Your task to perform on an android device: Show me popular videos on Youtube Image 0: 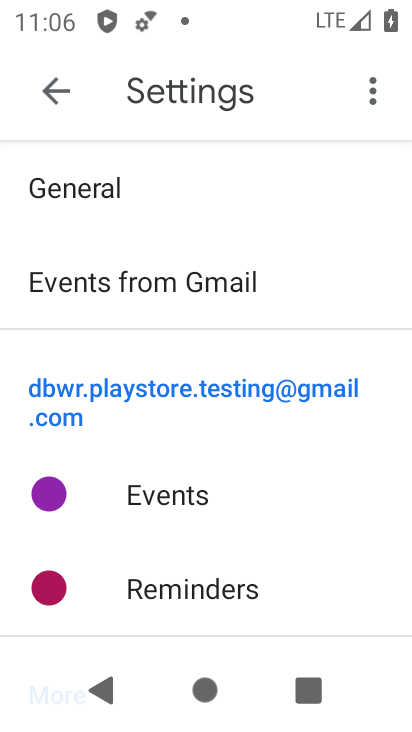
Step 0: press home button
Your task to perform on an android device: Show me popular videos on Youtube Image 1: 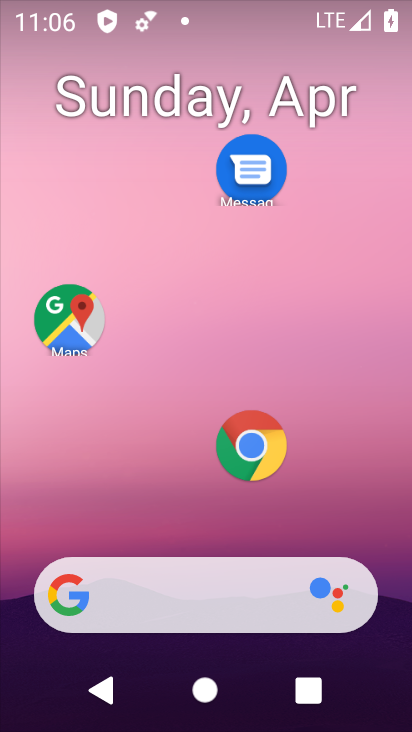
Step 1: drag from (183, 584) to (315, 71)
Your task to perform on an android device: Show me popular videos on Youtube Image 2: 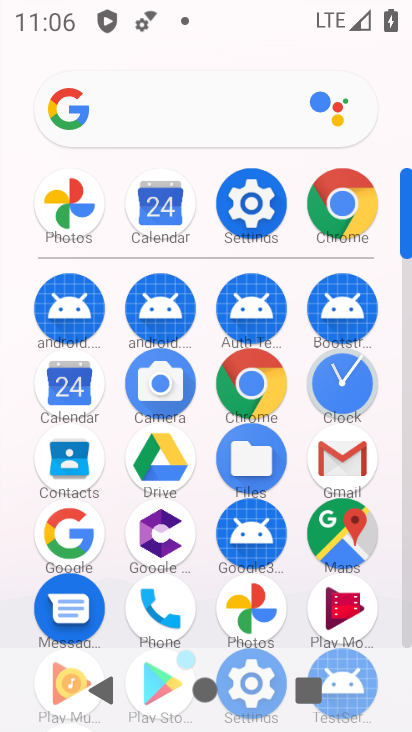
Step 2: drag from (202, 637) to (381, 119)
Your task to perform on an android device: Show me popular videos on Youtube Image 3: 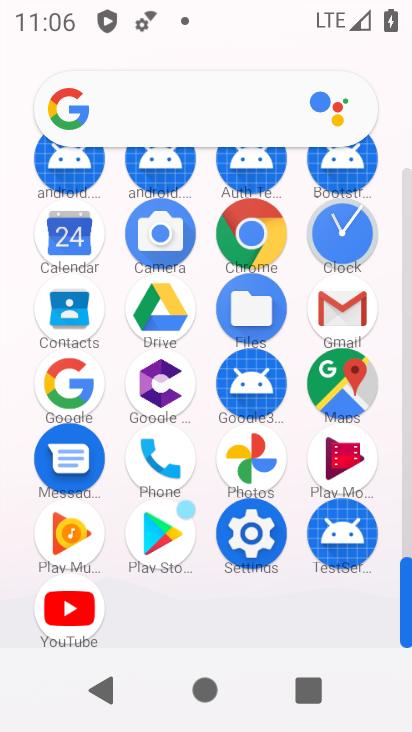
Step 3: click (77, 609)
Your task to perform on an android device: Show me popular videos on Youtube Image 4: 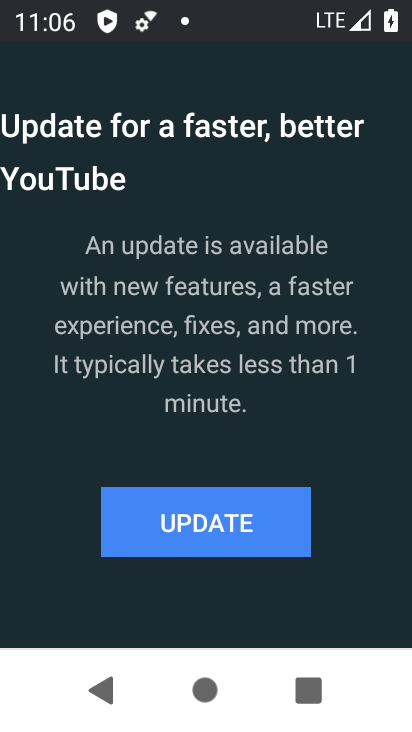
Step 4: click (195, 524)
Your task to perform on an android device: Show me popular videos on Youtube Image 5: 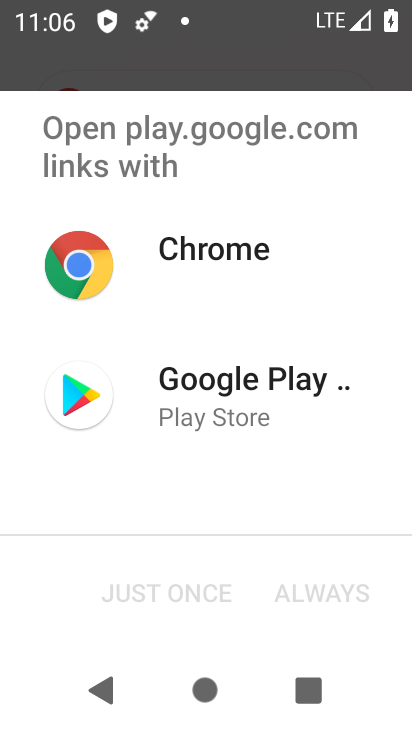
Step 5: click (211, 432)
Your task to perform on an android device: Show me popular videos on Youtube Image 6: 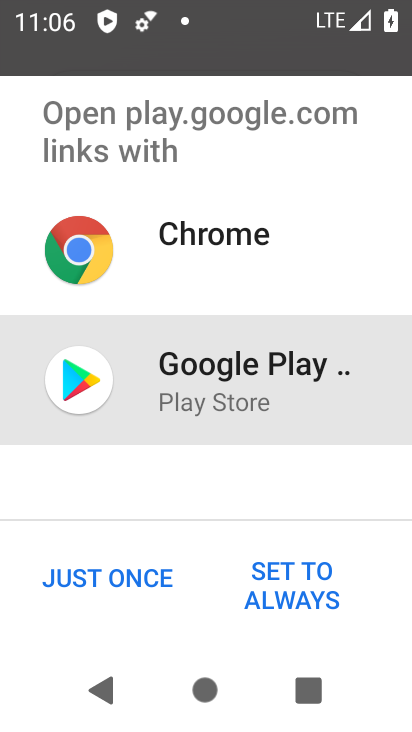
Step 6: click (129, 594)
Your task to perform on an android device: Show me popular videos on Youtube Image 7: 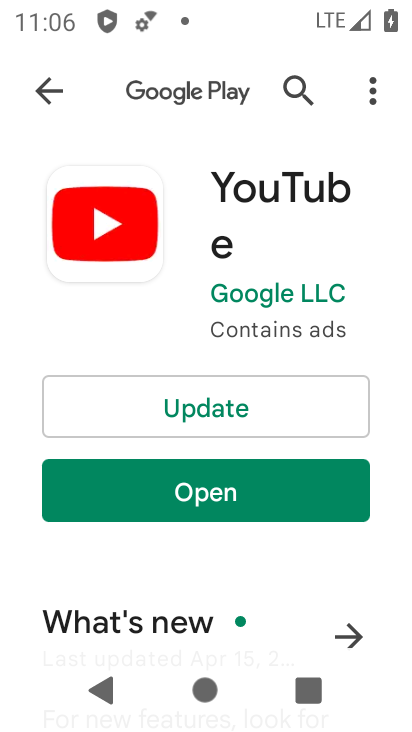
Step 7: click (207, 494)
Your task to perform on an android device: Show me popular videos on Youtube Image 8: 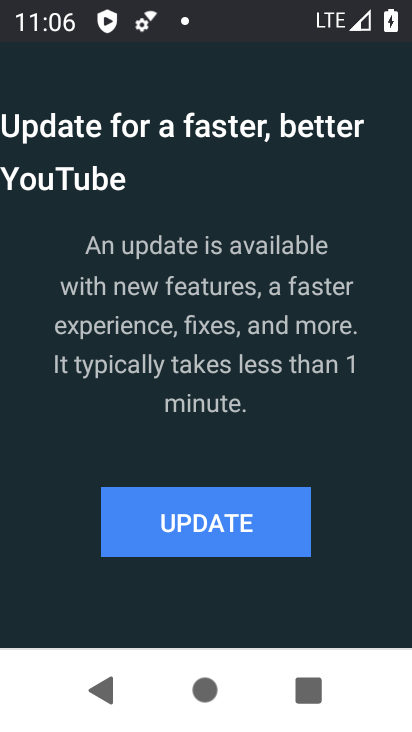
Step 8: click (185, 535)
Your task to perform on an android device: Show me popular videos on Youtube Image 9: 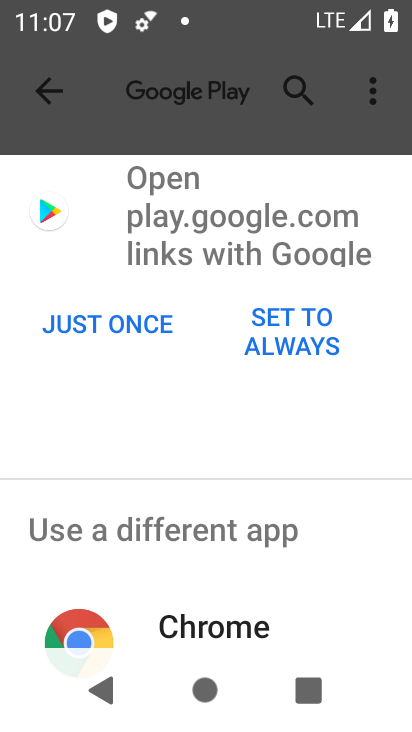
Step 9: click (132, 314)
Your task to perform on an android device: Show me popular videos on Youtube Image 10: 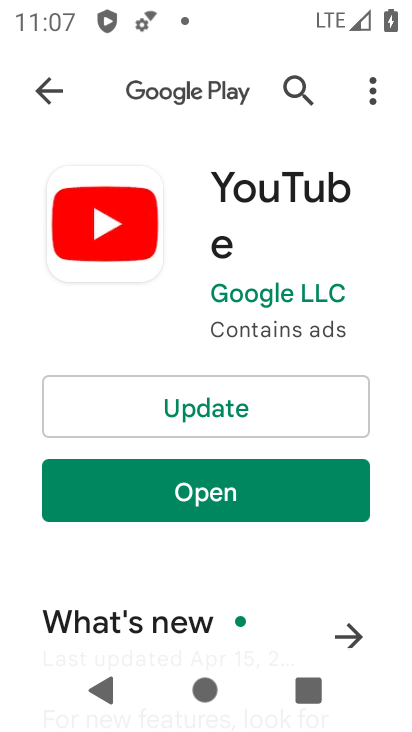
Step 10: click (195, 414)
Your task to perform on an android device: Show me popular videos on Youtube Image 11: 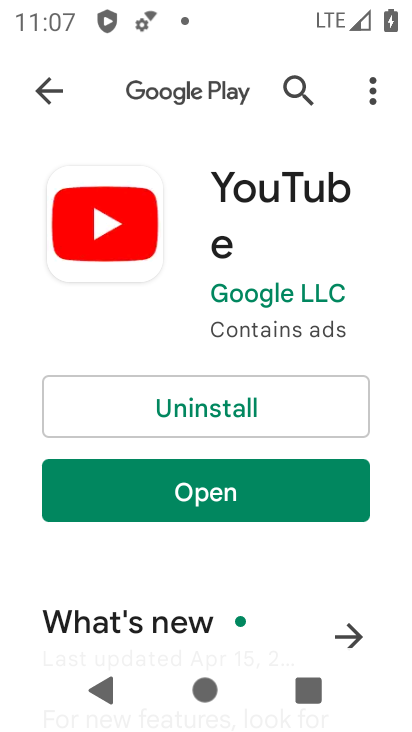
Step 11: click (185, 491)
Your task to perform on an android device: Show me popular videos on Youtube Image 12: 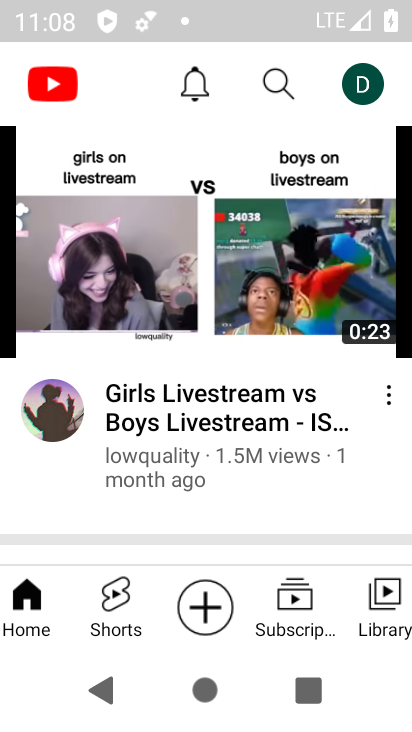
Step 12: task complete